Your task to perform on an android device: What's the weather today? Image 0: 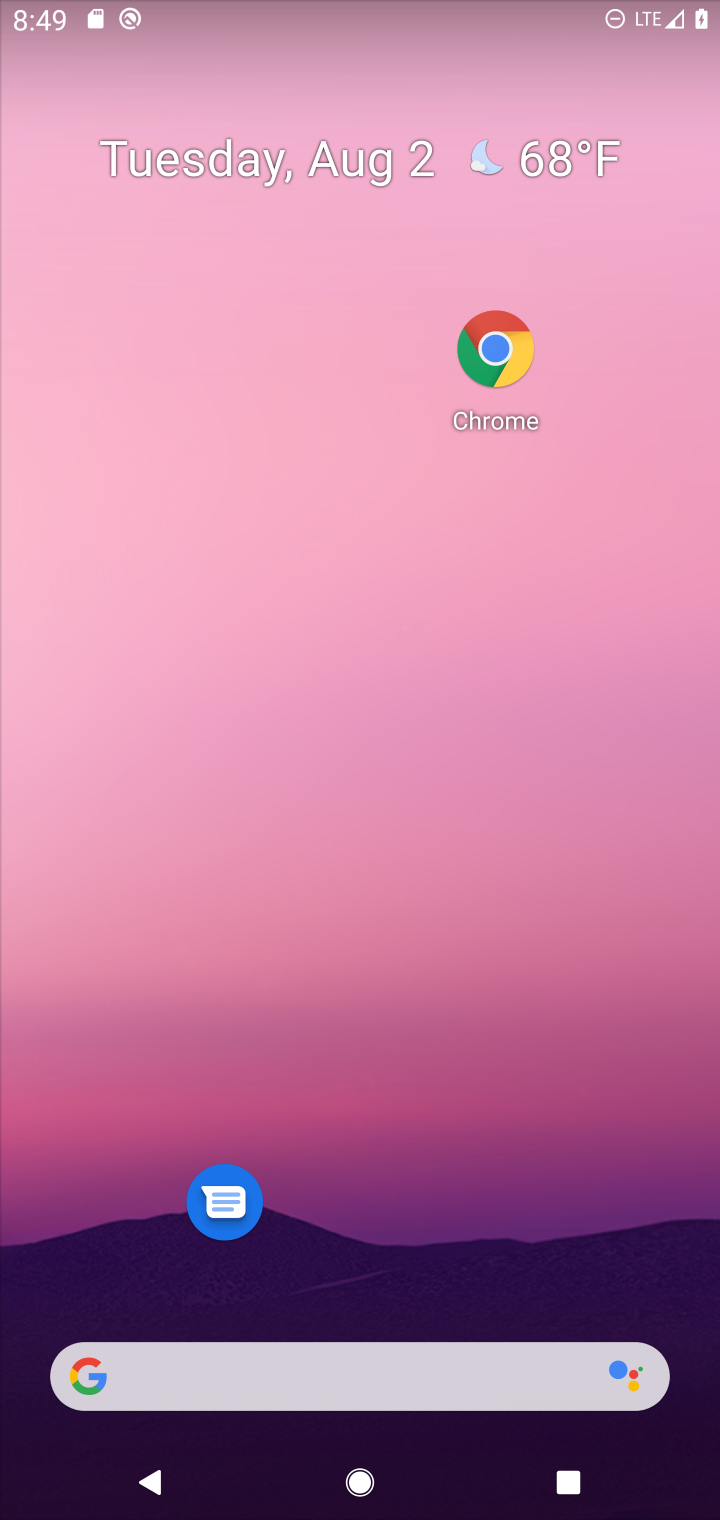
Step 0: click (558, 178)
Your task to perform on an android device: What's the weather today? Image 1: 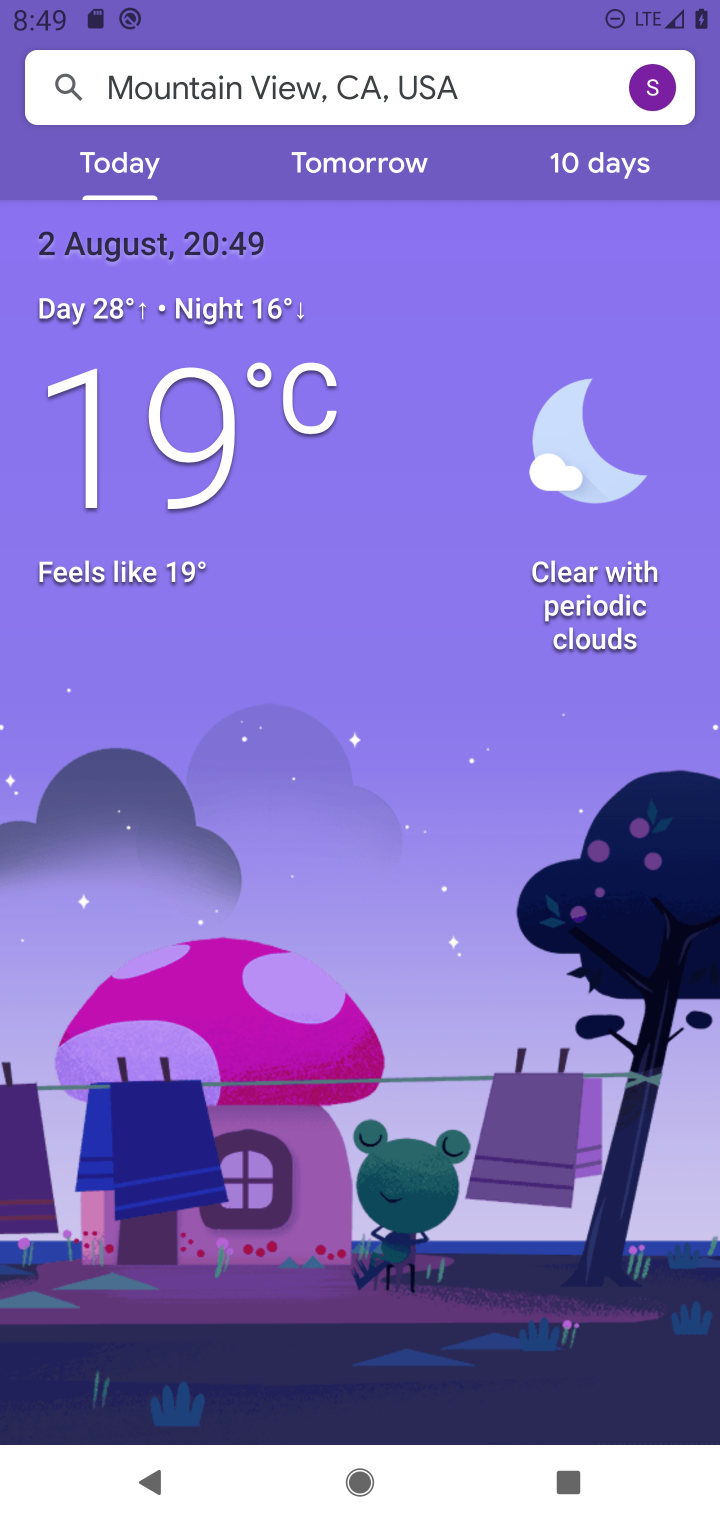
Step 1: task complete